Your task to perform on an android device: turn off airplane mode Image 0: 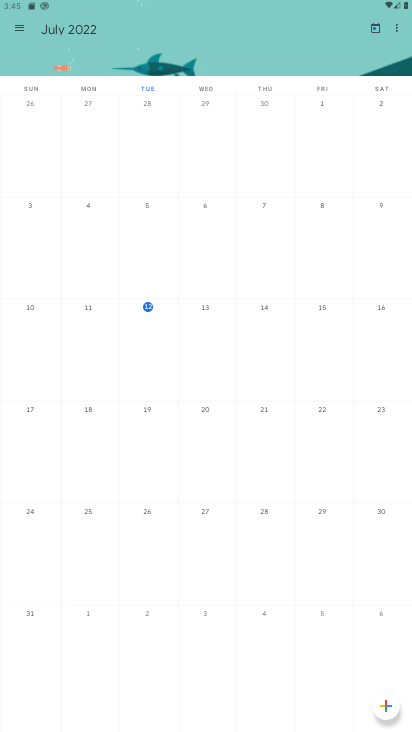
Step 0: press home button
Your task to perform on an android device: turn off airplane mode Image 1: 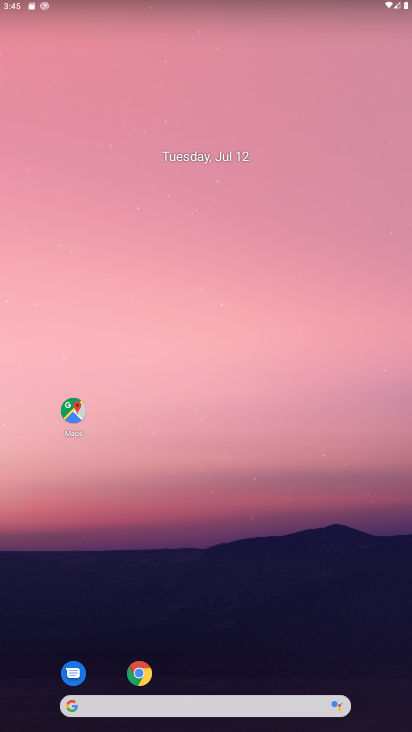
Step 1: drag from (203, 681) to (344, 83)
Your task to perform on an android device: turn off airplane mode Image 2: 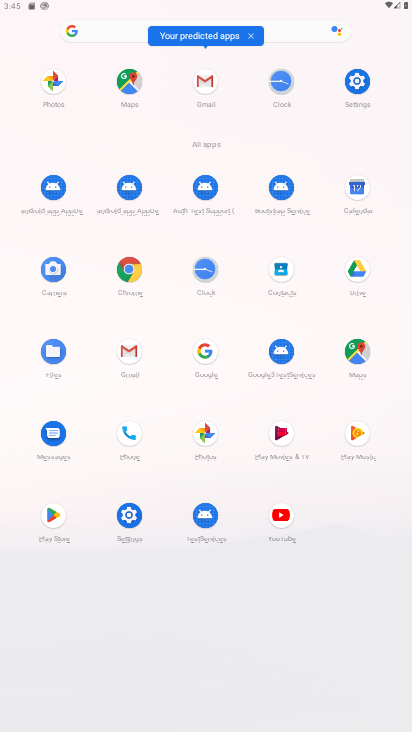
Step 2: click (127, 524)
Your task to perform on an android device: turn off airplane mode Image 3: 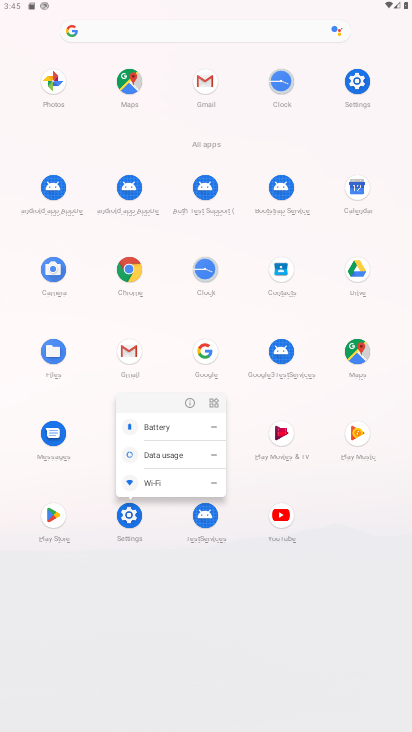
Step 3: click (133, 521)
Your task to perform on an android device: turn off airplane mode Image 4: 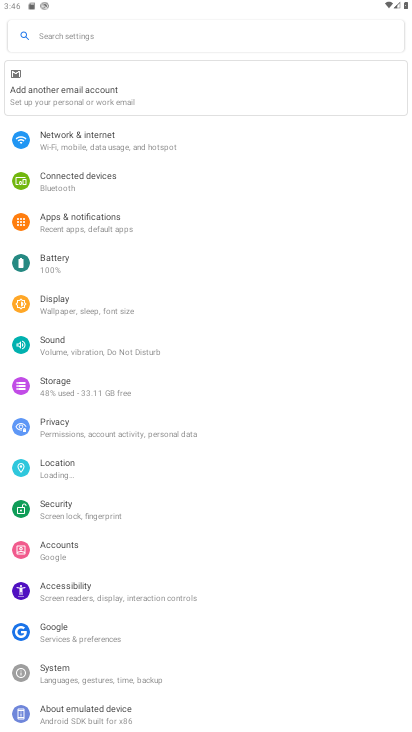
Step 4: click (140, 148)
Your task to perform on an android device: turn off airplane mode Image 5: 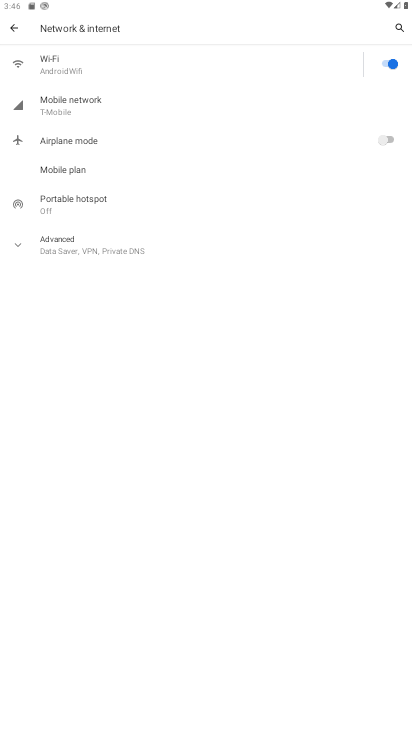
Step 5: task complete